Your task to perform on an android device: Open calendar and show me the fourth week of next month Image 0: 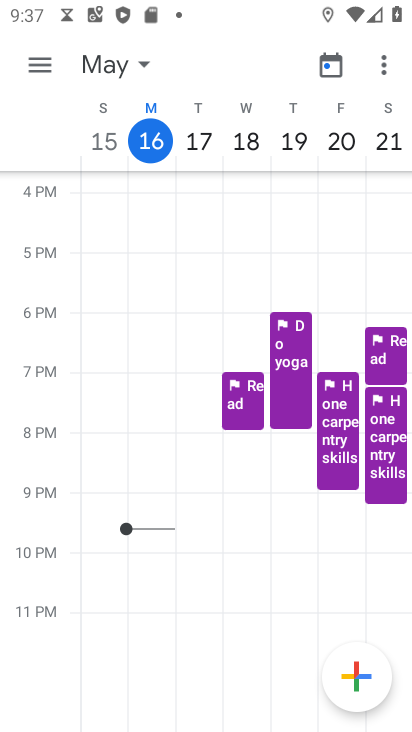
Step 0: press home button
Your task to perform on an android device: Open calendar and show me the fourth week of next month Image 1: 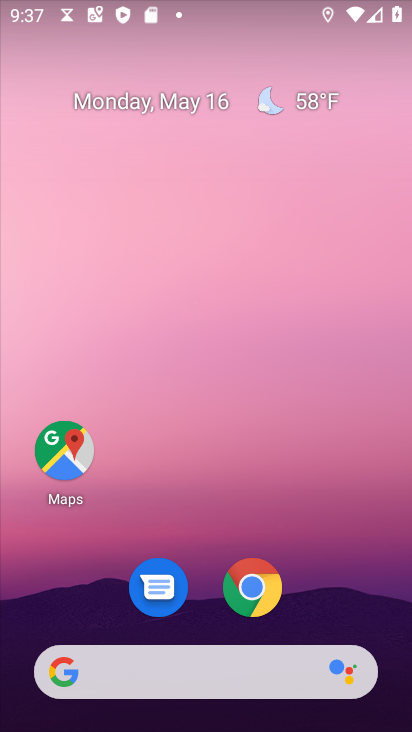
Step 1: click (55, 430)
Your task to perform on an android device: Open calendar and show me the fourth week of next month Image 2: 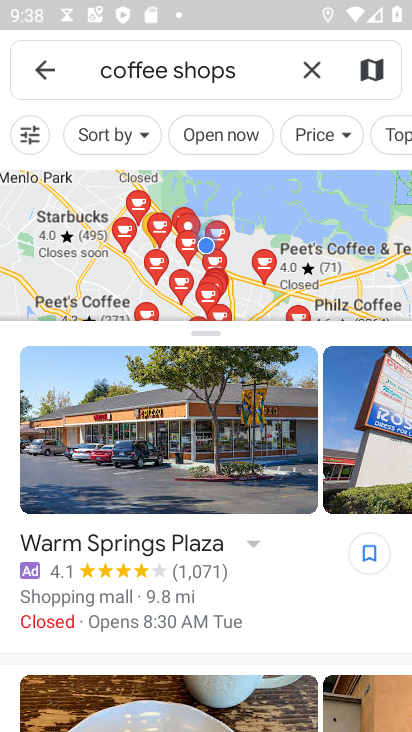
Step 2: press home button
Your task to perform on an android device: Open calendar and show me the fourth week of next month Image 3: 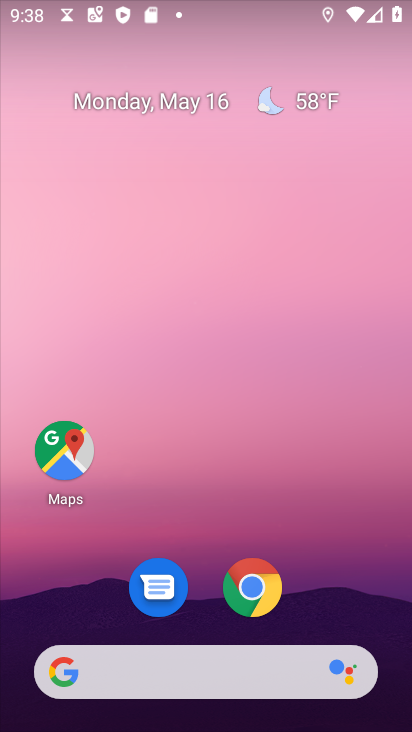
Step 3: drag from (344, 593) to (318, 132)
Your task to perform on an android device: Open calendar and show me the fourth week of next month Image 4: 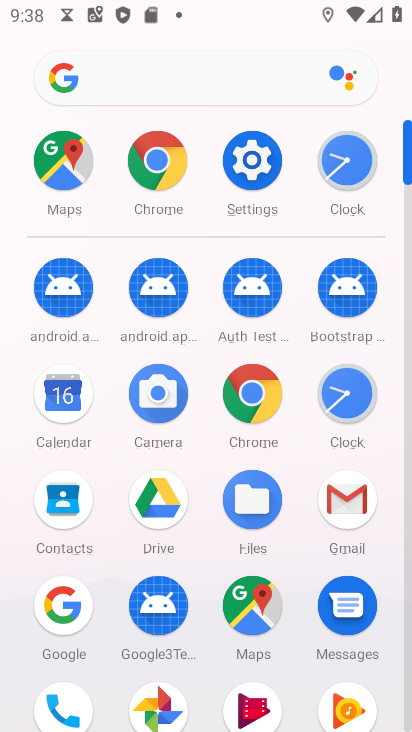
Step 4: click (65, 404)
Your task to perform on an android device: Open calendar and show me the fourth week of next month Image 5: 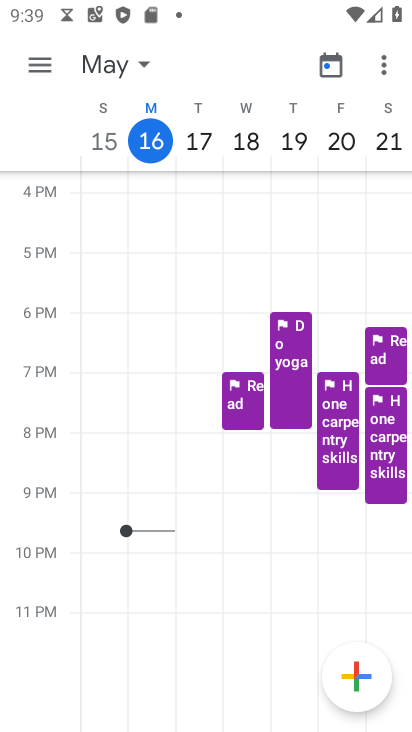
Step 5: click (132, 73)
Your task to perform on an android device: Open calendar and show me the fourth week of next month Image 6: 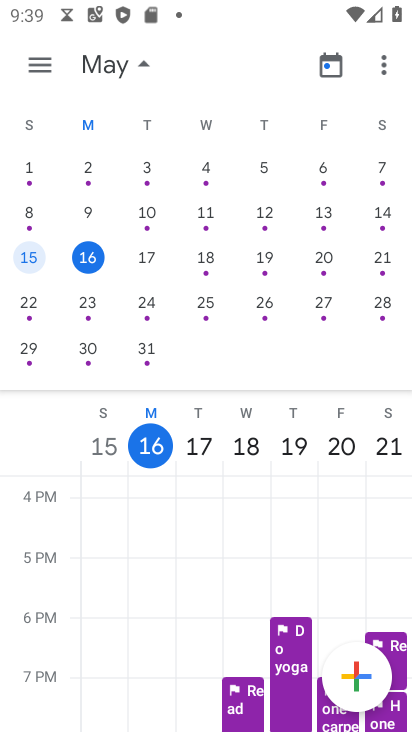
Step 6: drag from (368, 277) to (27, 267)
Your task to perform on an android device: Open calendar and show me the fourth week of next month Image 7: 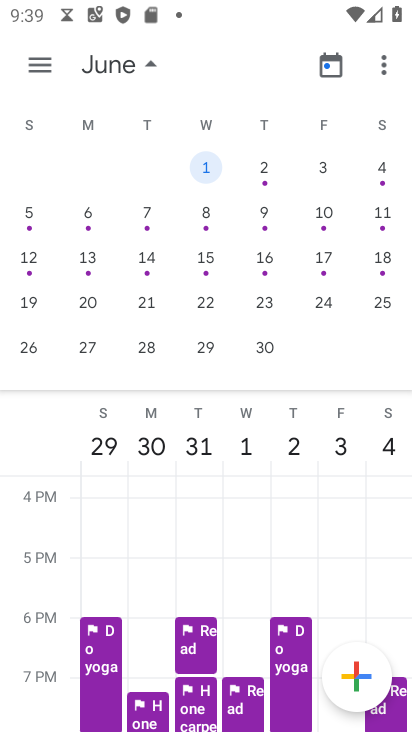
Step 7: click (200, 310)
Your task to perform on an android device: Open calendar and show me the fourth week of next month Image 8: 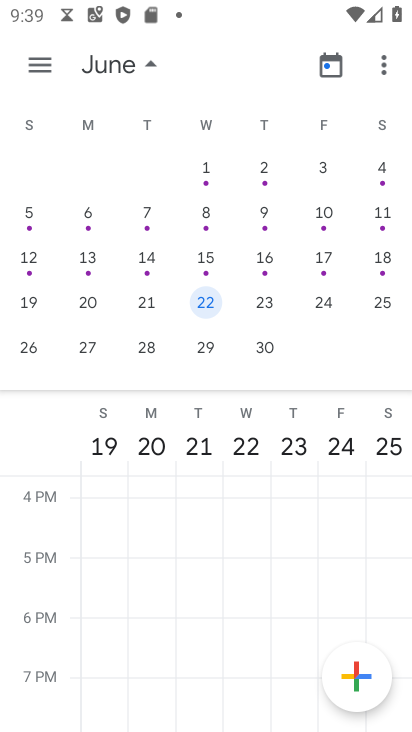
Step 8: task complete